Your task to perform on an android device: Go to Wikipedia Image 0: 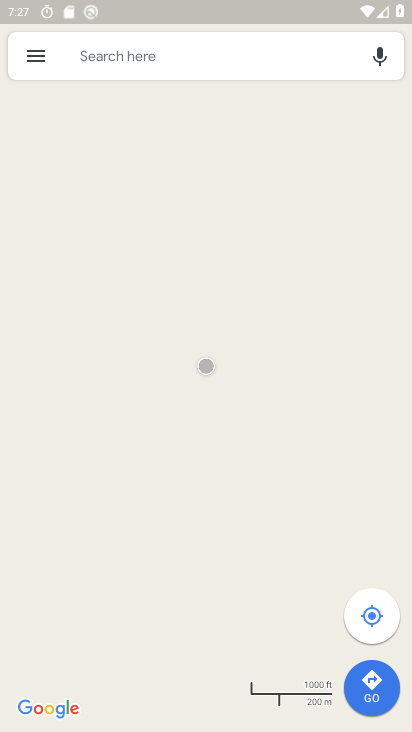
Step 0: press home button
Your task to perform on an android device: Go to Wikipedia Image 1: 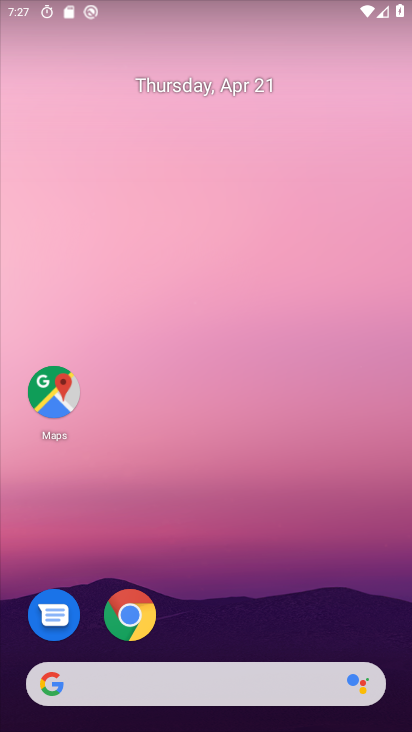
Step 1: drag from (148, 665) to (294, 127)
Your task to perform on an android device: Go to Wikipedia Image 2: 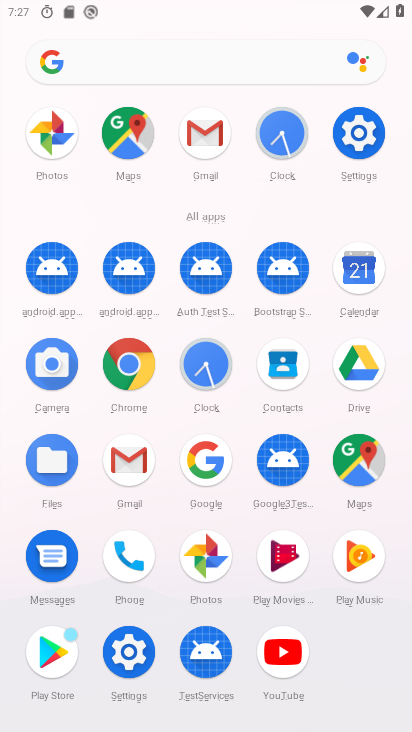
Step 2: click (140, 376)
Your task to perform on an android device: Go to Wikipedia Image 3: 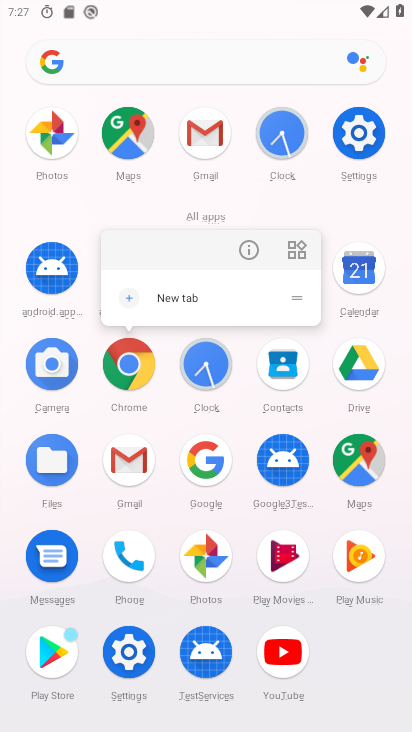
Step 3: click (131, 371)
Your task to perform on an android device: Go to Wikipedia Image 4: 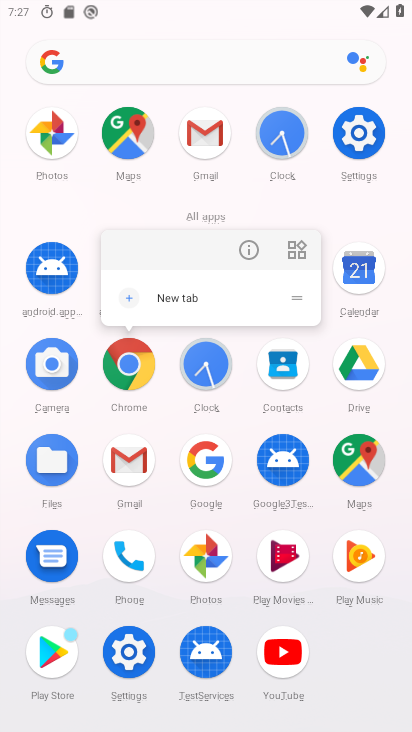
Step 4: click (133, 367)
Your task to perform on an android device: Go to Wikipedia Image 5: 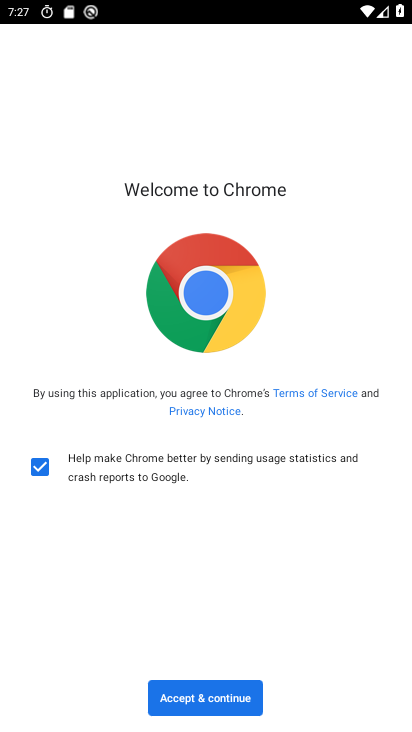
Step 5: click (207, 691)
Your task to perform on an android device: Go to Wikipedia Image 6: 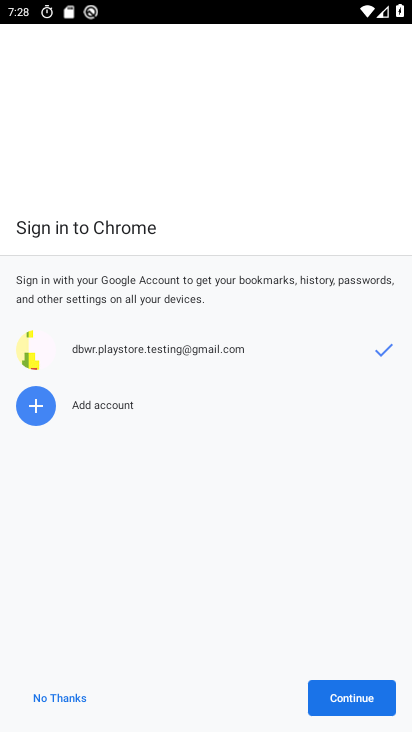
Step 6: click (334, 697)
Your task to perform on an android device: Go to Wikipedia Image 7: 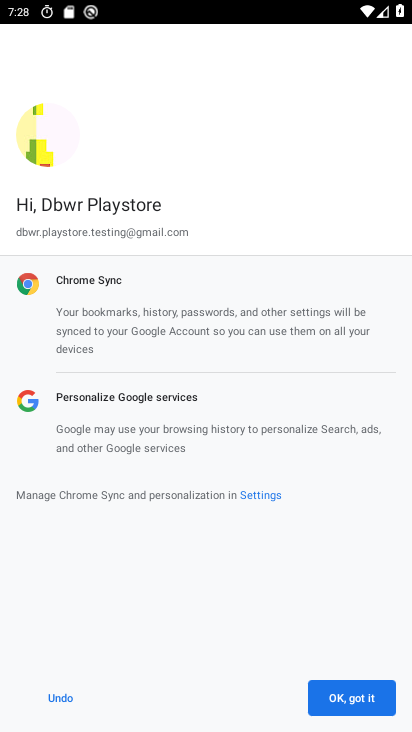
Step 7: click (352, 698)
Your task to perform on an android device: Go to Wikipedia Image 8: 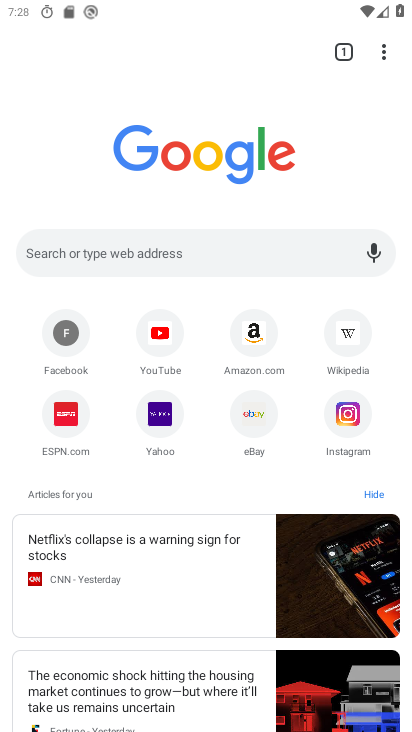
Step 8: click (343, 338)
Your task to perform on an android device: Go to Wikipedia Image 9: 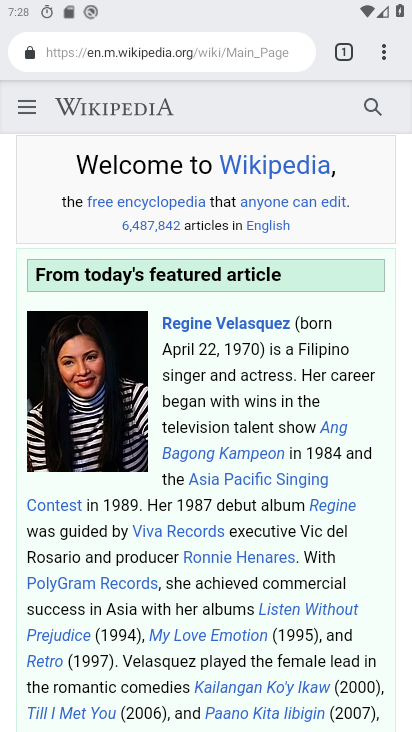
Step 9: task complete